Your task to perform on an android device: Open ESPN.com Image 0: 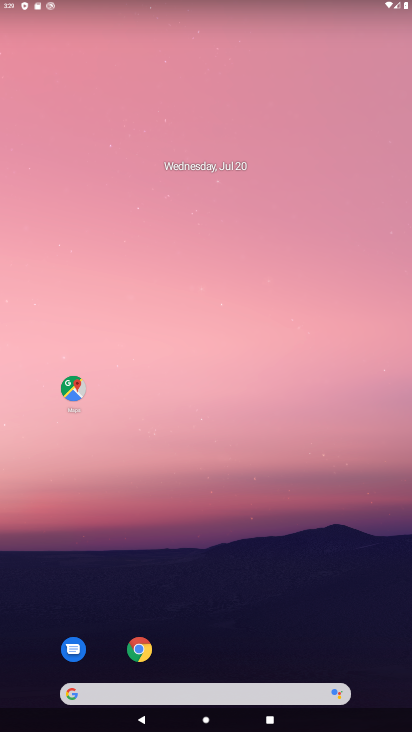
Step 0: click (142, 651)
Your task to perform on an android device: Open ESPN.com Image 1: 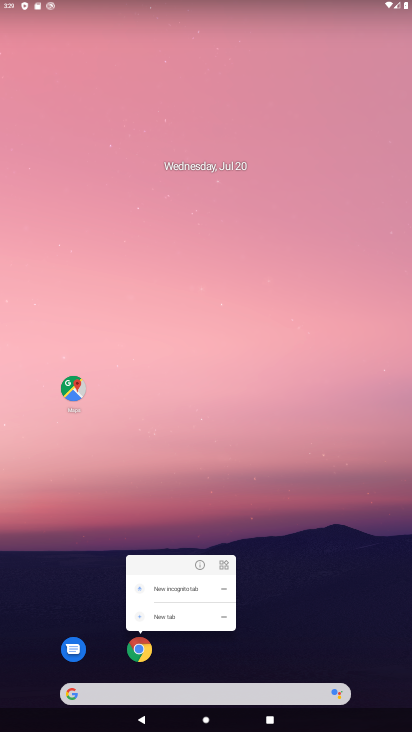
Step 1: click (142, 651)
Your task to perform on an android device: Open ESPN.com Image 2: 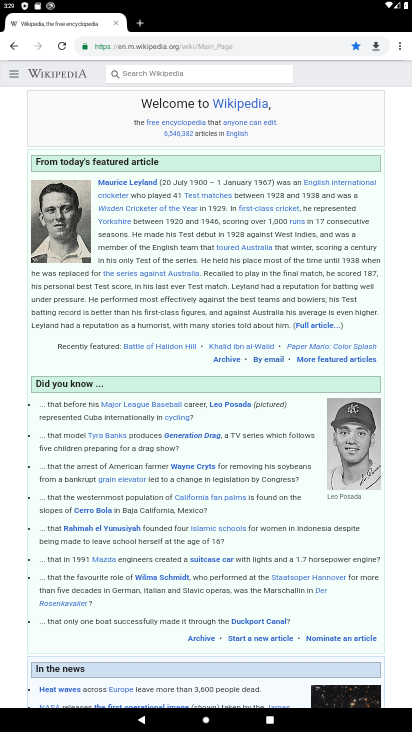
Step 2: click (116, 26)
Your task to perform on an android device: Open ESPN.com Image 3: 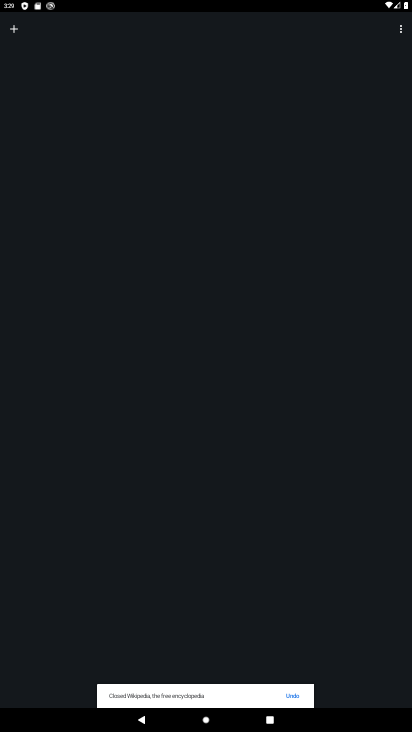
Step 3: click (13, 31)
Your task to perform on an android device: Open ESPN.com Image 4: 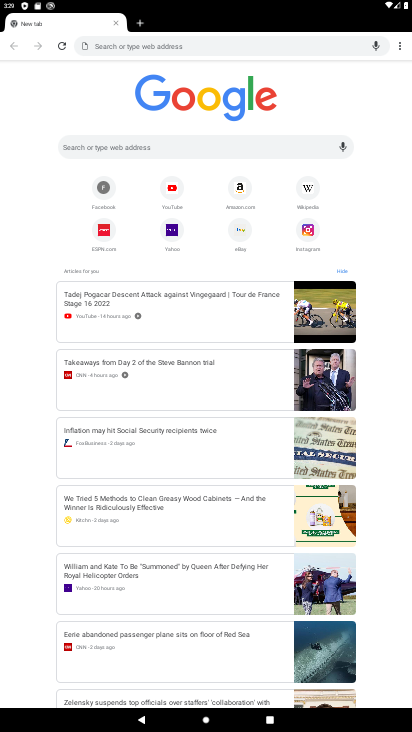
Step 4: click (99, 226)
Your task to perform on an android device: Open ESPN.com Image 5: 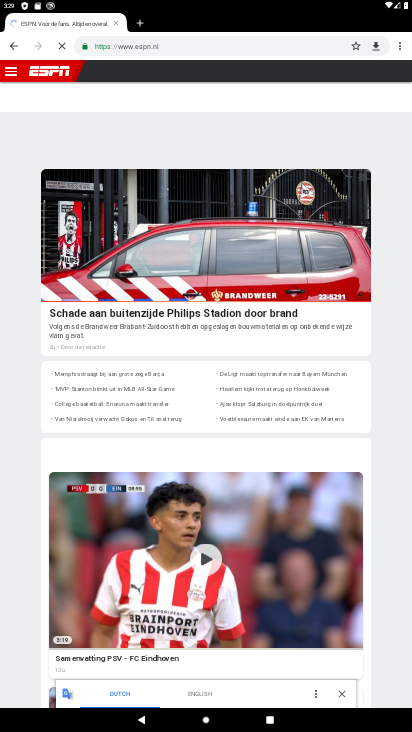
Step 5: task complete